Your task to perform on an android device: open app "Truecaller" (install if not already installed) Image 0: 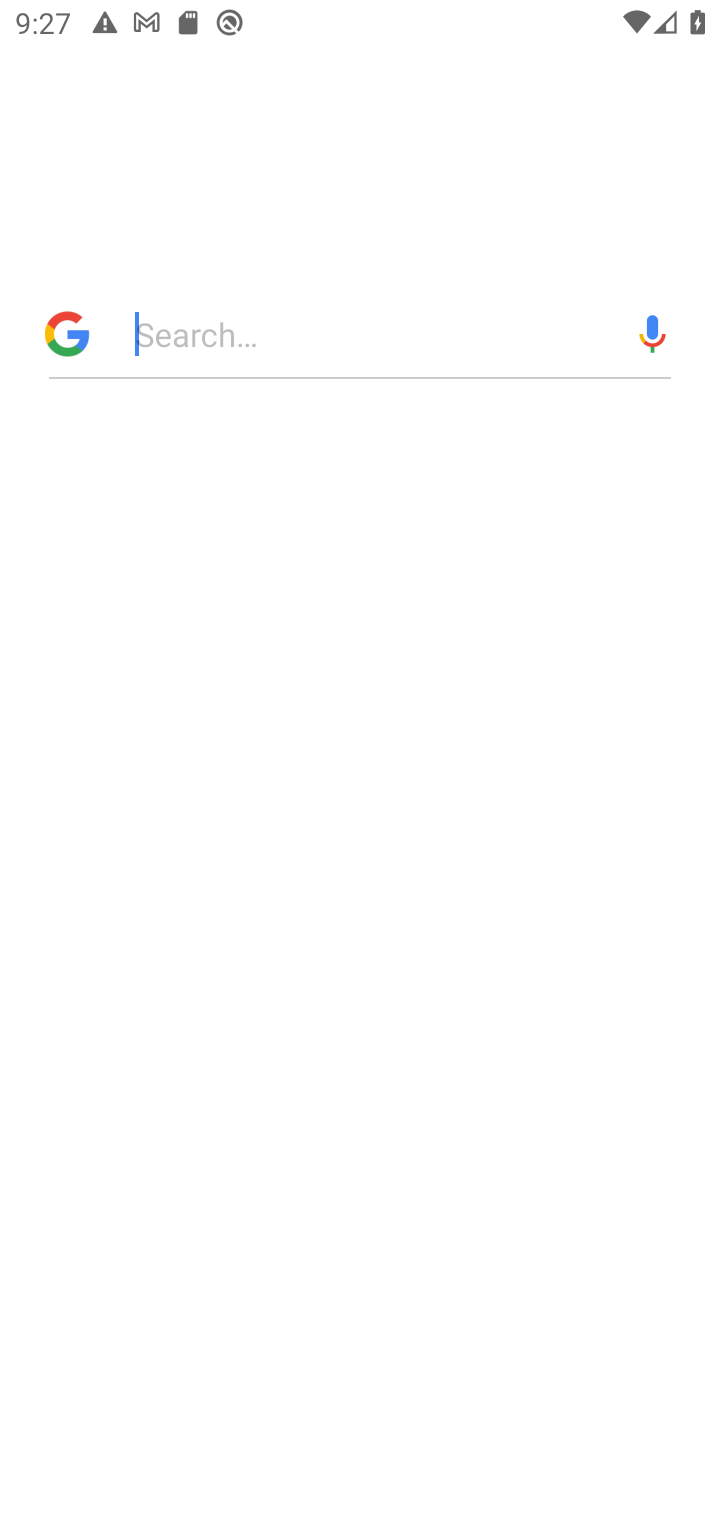
Step 0: press home button
Your task to perform on an android device: open app "Truecaller" (install if not already installed) Image 1: 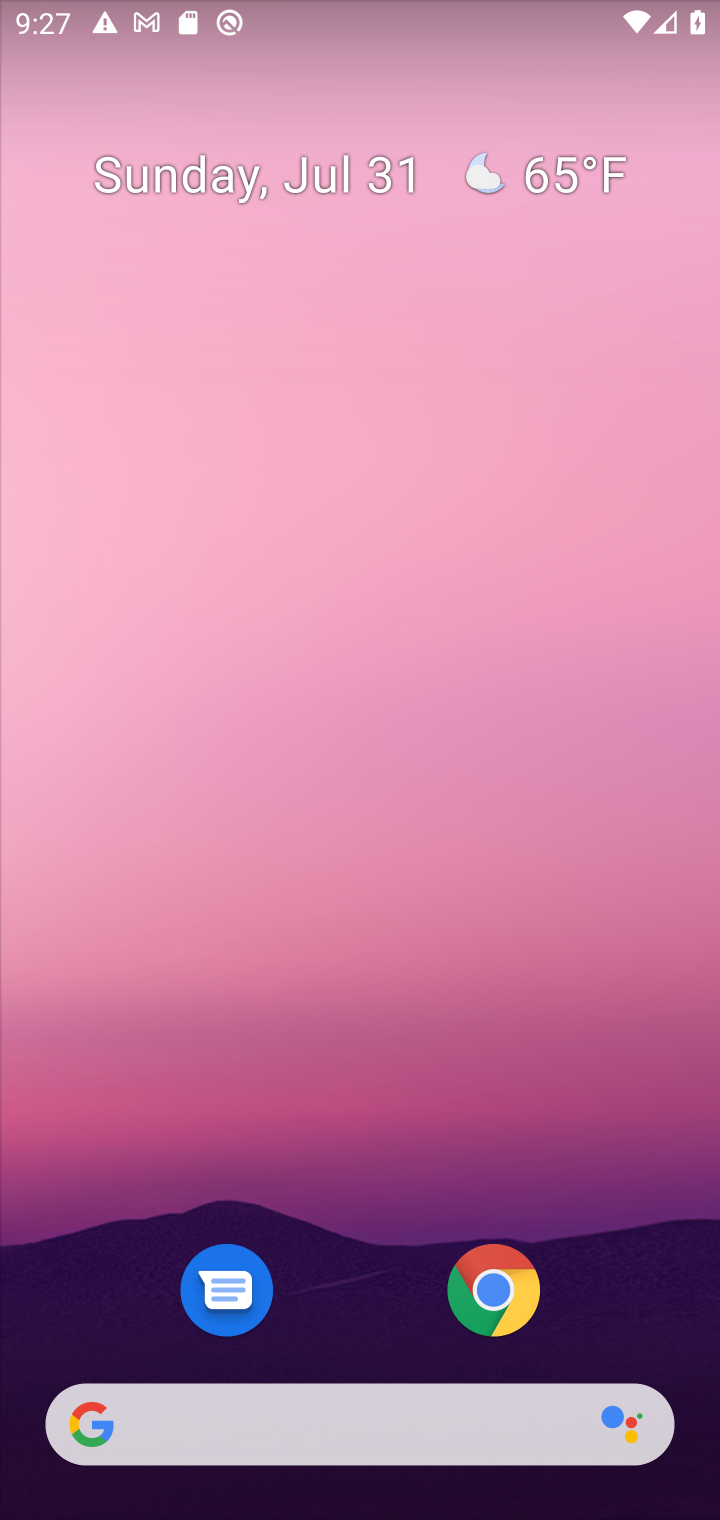
Step 1: drag from (618, 1017) to (566, 140)
Your task to perform on an android device: open app "Truecaller" (install if not already installed) Image 2: 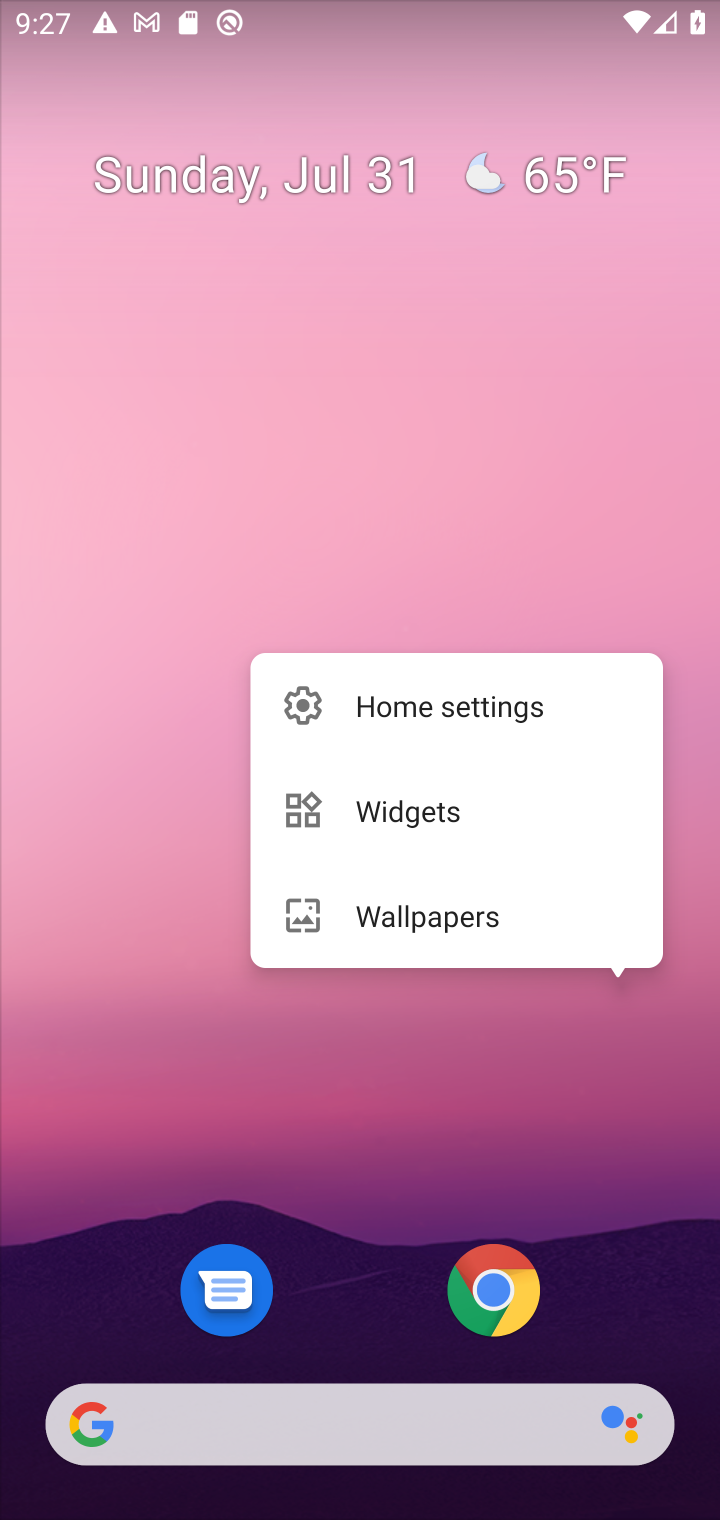
Step 2: drag from (672, 1199) to (688, 318)
Your task to perform on an android device: open app "Truecaller" (install if not already installed) Image 3: 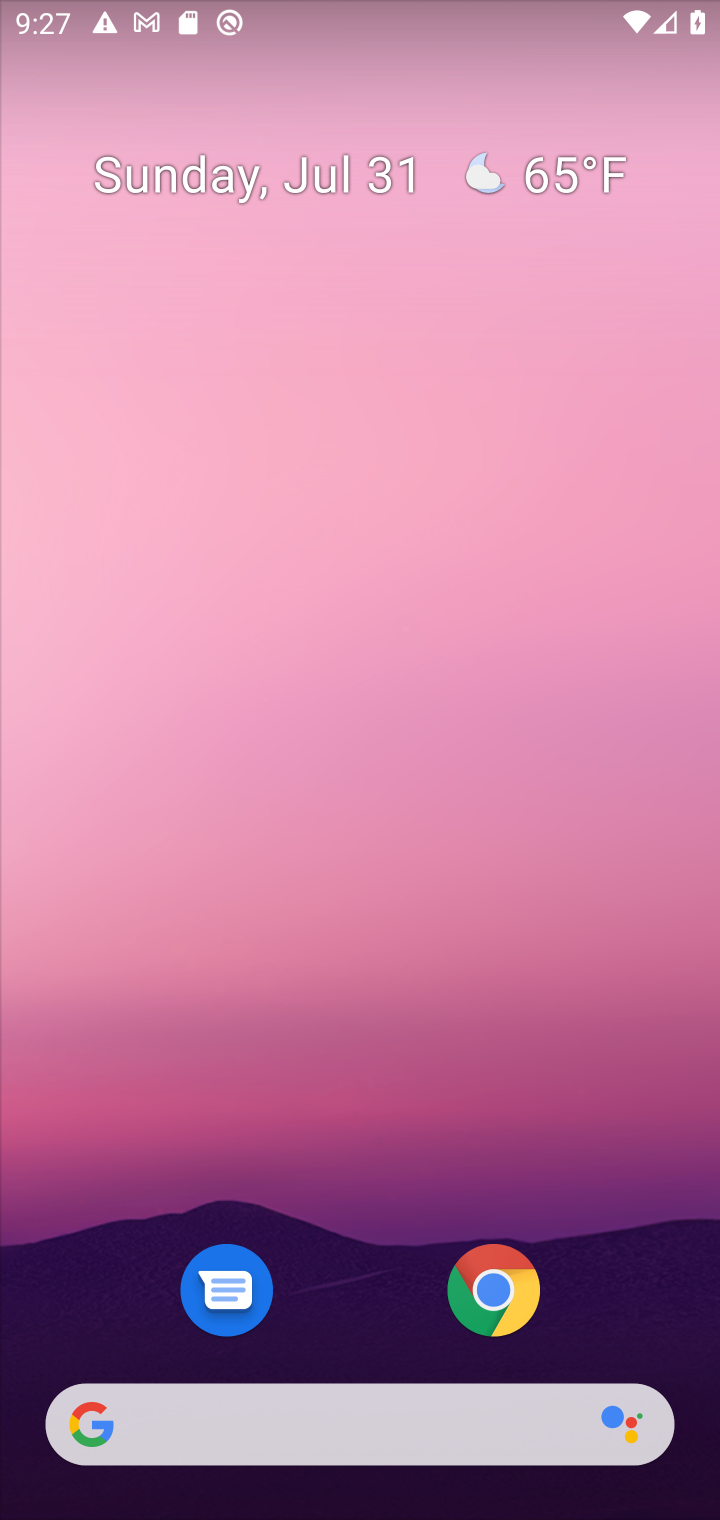
Step 3: drag from (614, 1308) to (540, 1)
Your task to perform on an android device: open app "Truecaller" (install if not already installed) Image 4: 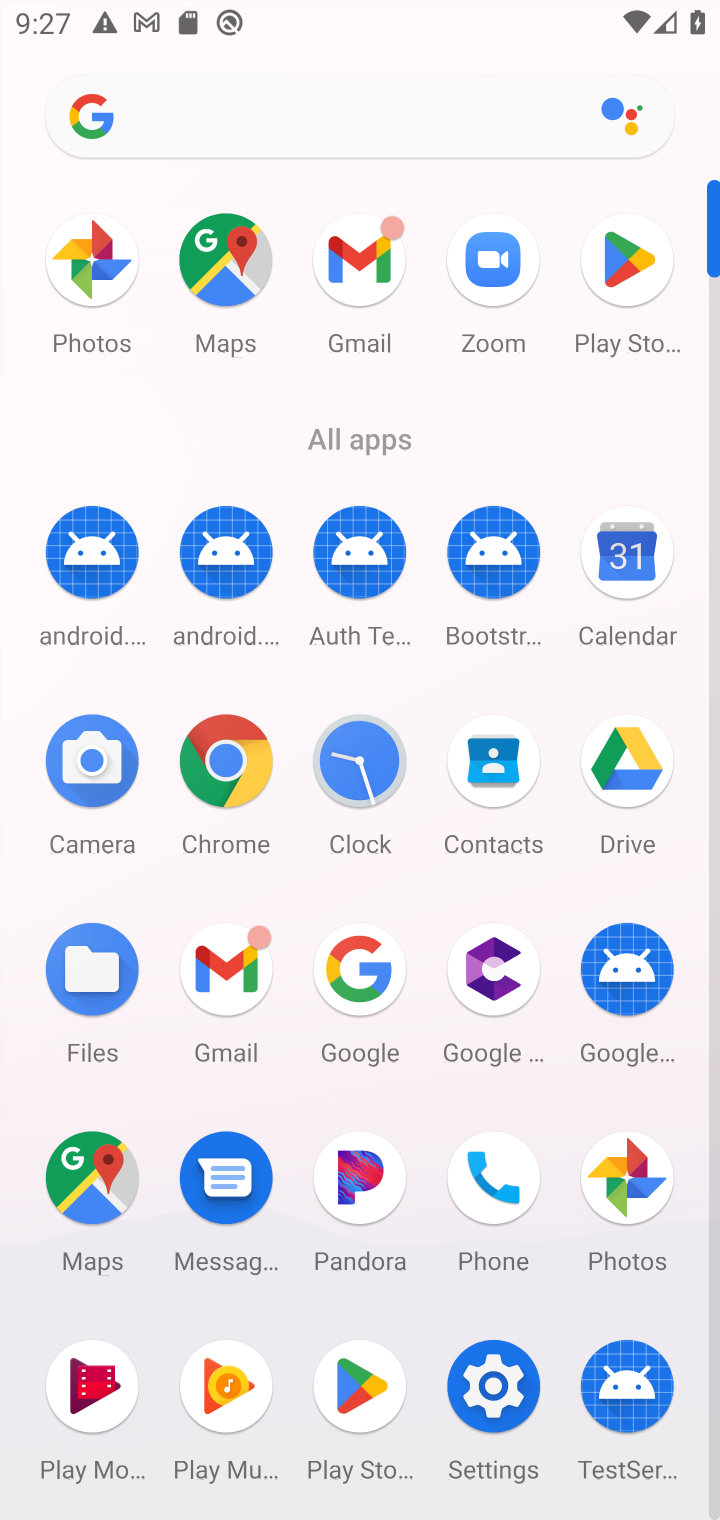
Step 4: click (629, 260)
Your task to perform on an android device: open app "Truecaller" (install if not already installed) Image 5: 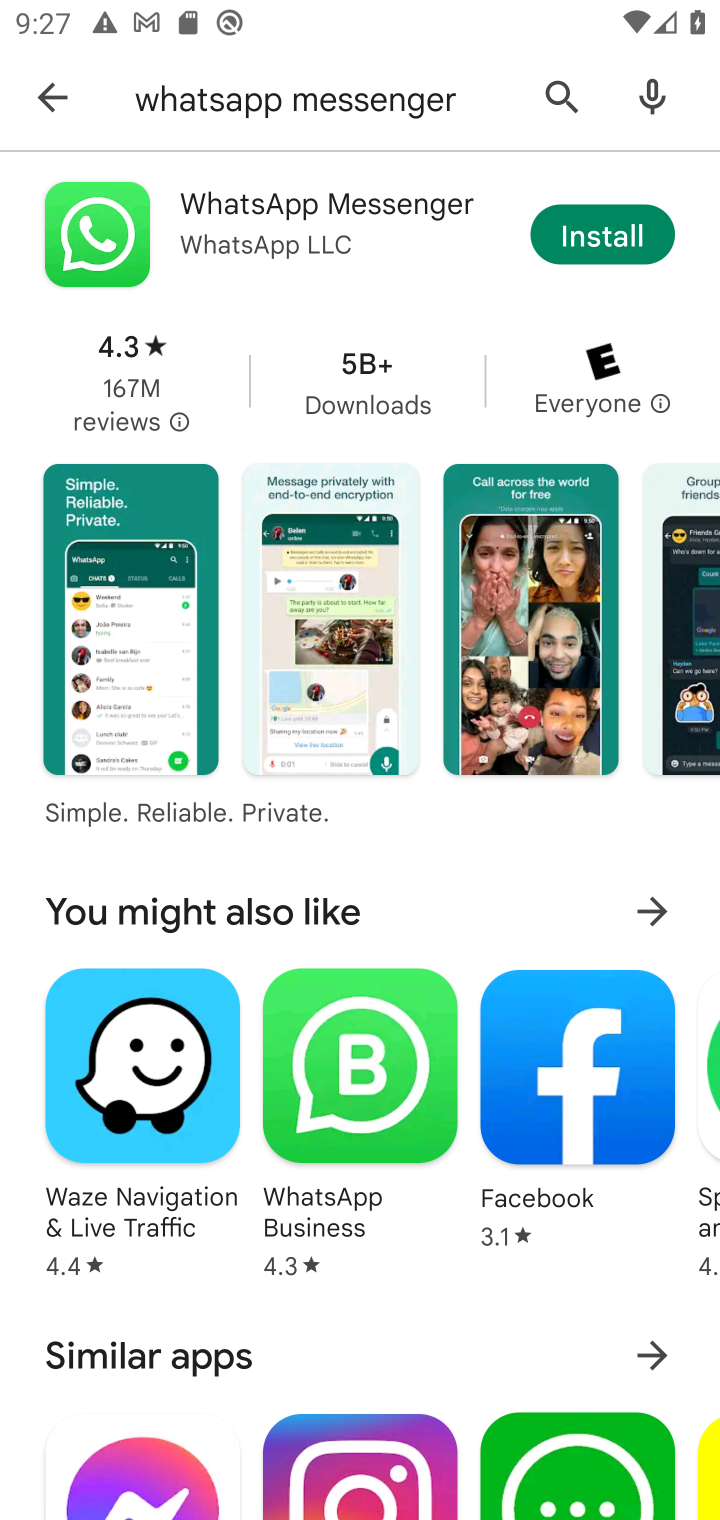
Step 5: click (566, 92)
Your task to perform on an android device: open app "Truecaller" (install if not already installed) Image 6: 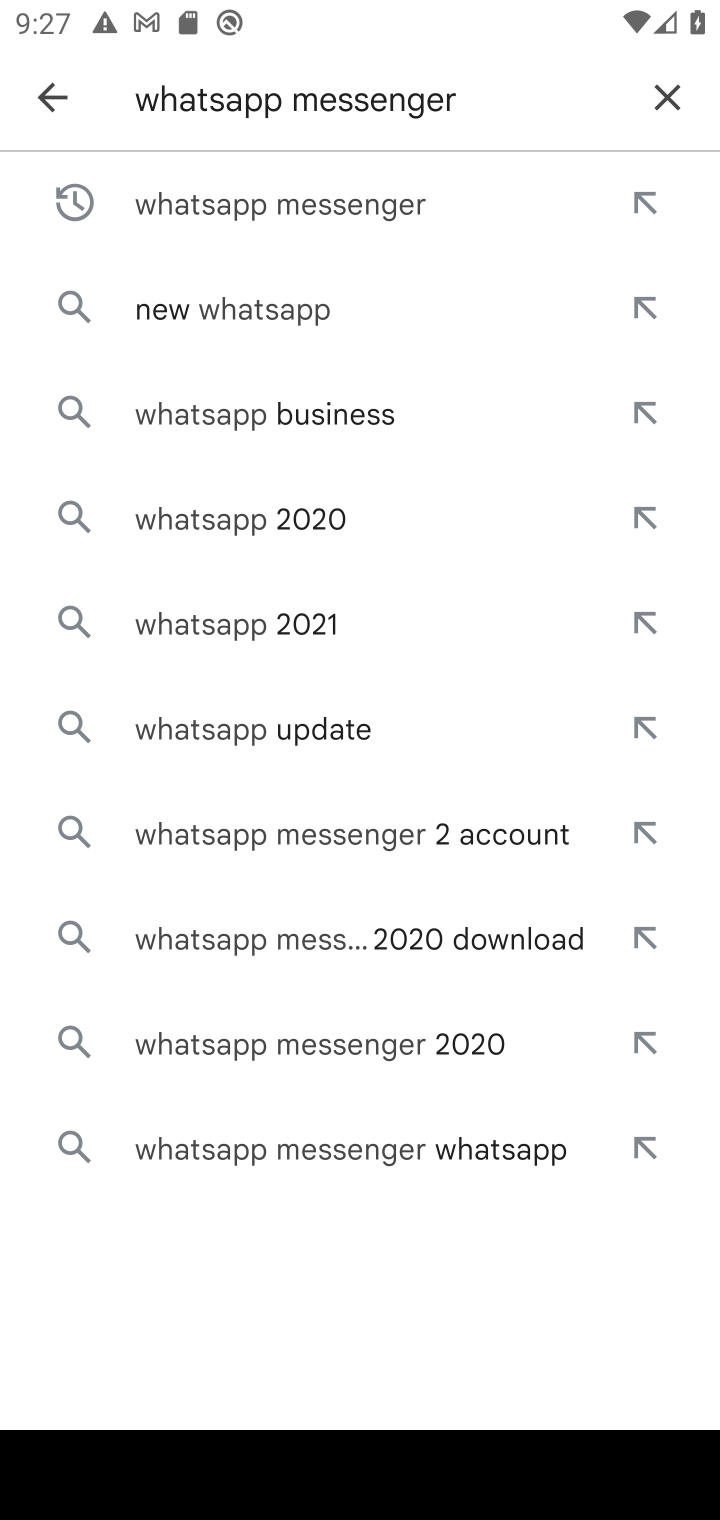
Step 6: click (672, 93)
Your task to perform on an android device: open app "Truecaller" (install if not already installed) Image 7: 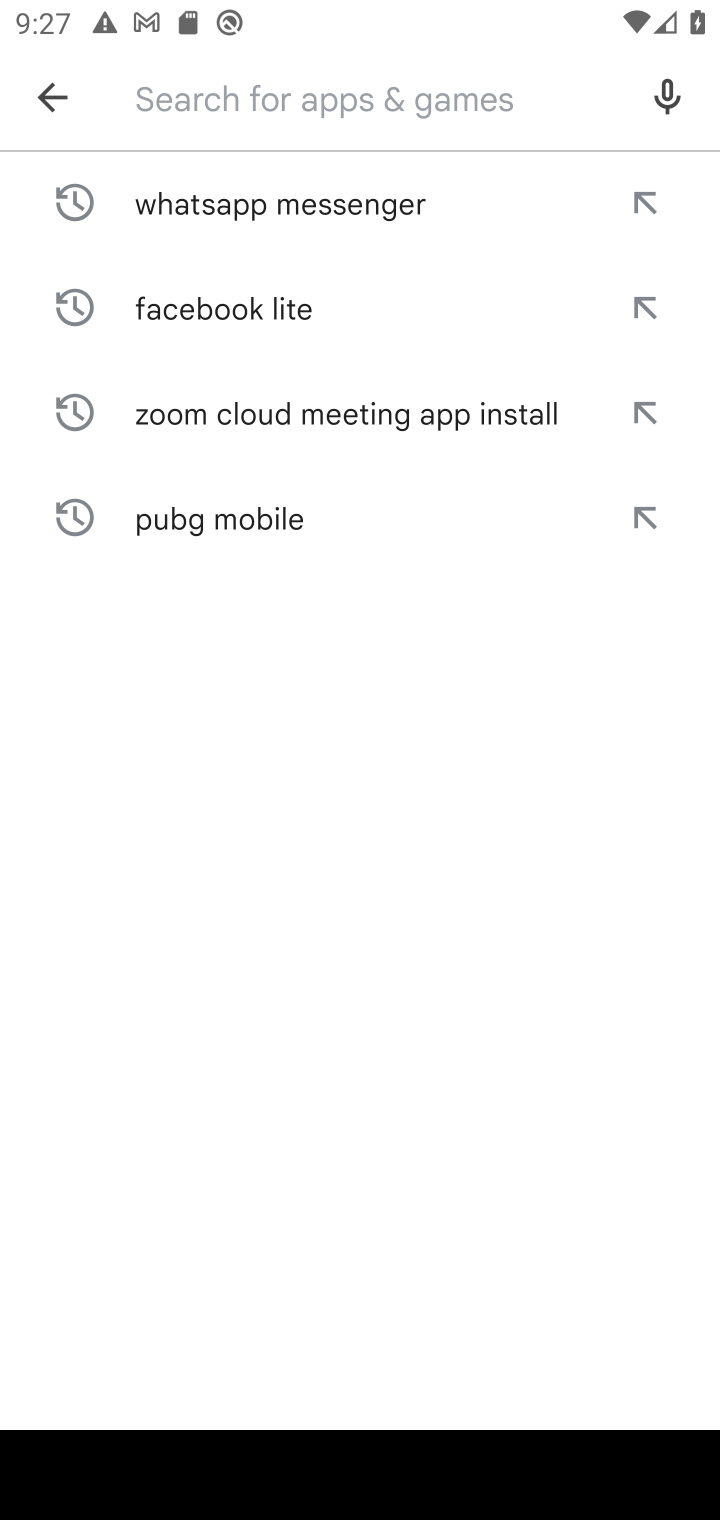
Step 7: type "truecaller"
Your task to perform on an android device: open app "Truecaller" (install if not already installed) Image 8: 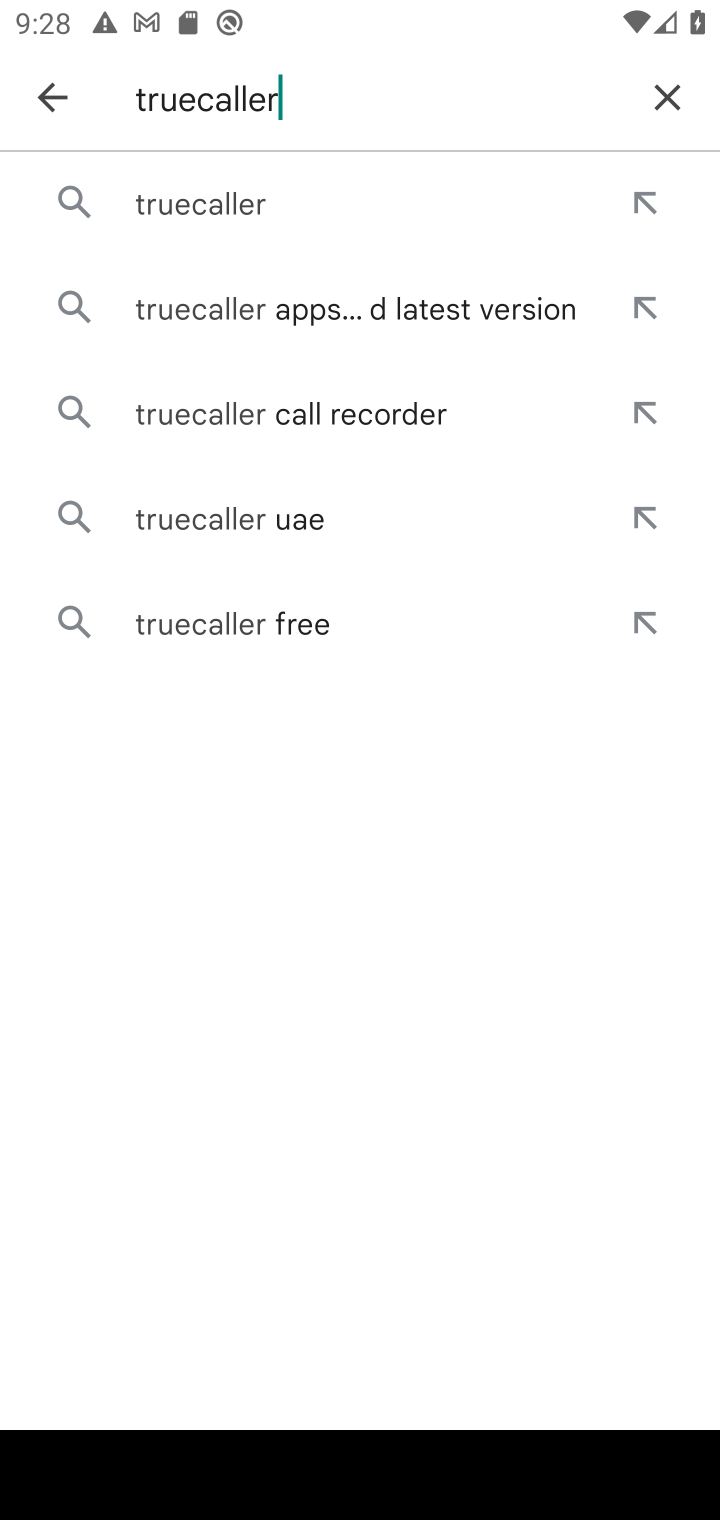
Step 8: click (272, 200)
Your task to perform on an android device: open app "Truecaller" (install if not already installed) Image 9: 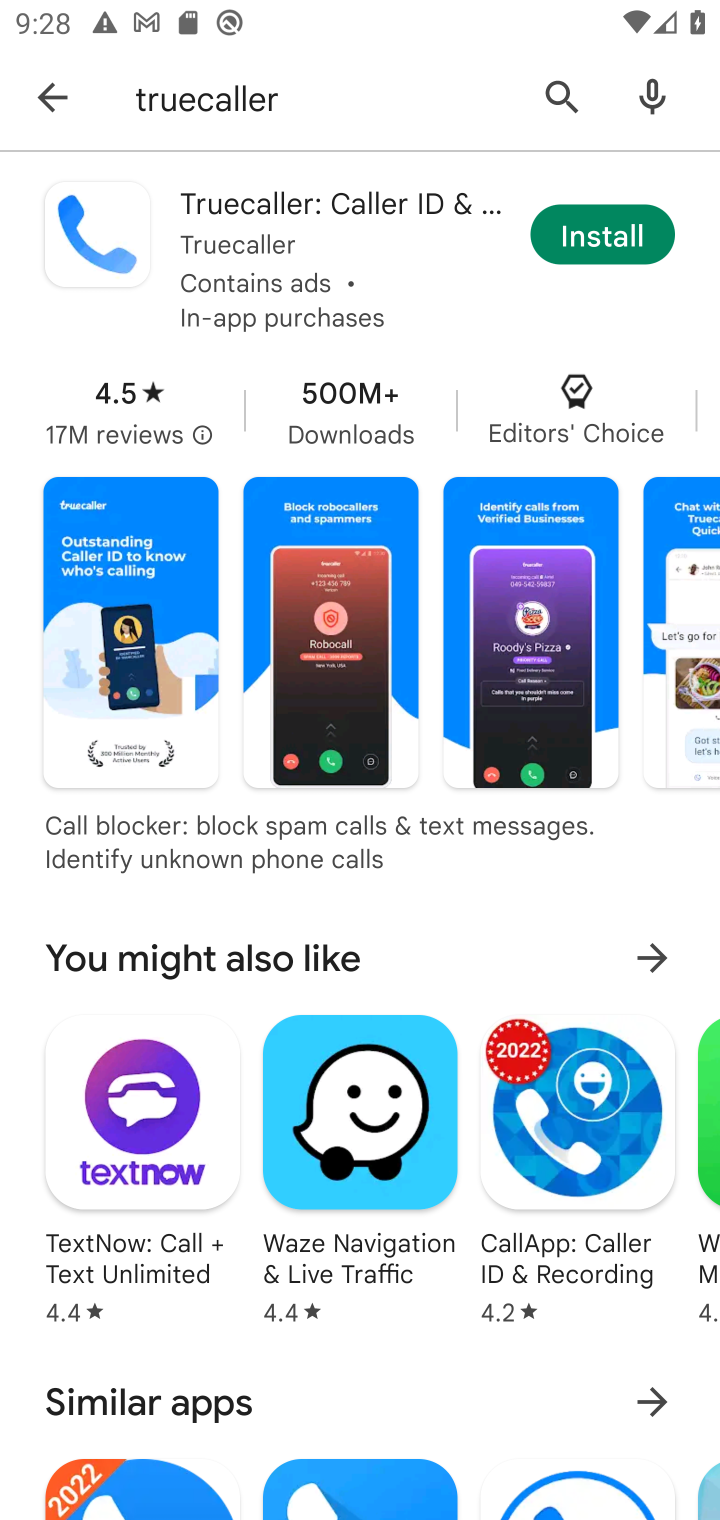
Step 9: click (604, 263)
Your task to perform on an android device: open app "Truecaller" (install if not already installed) Image 10: 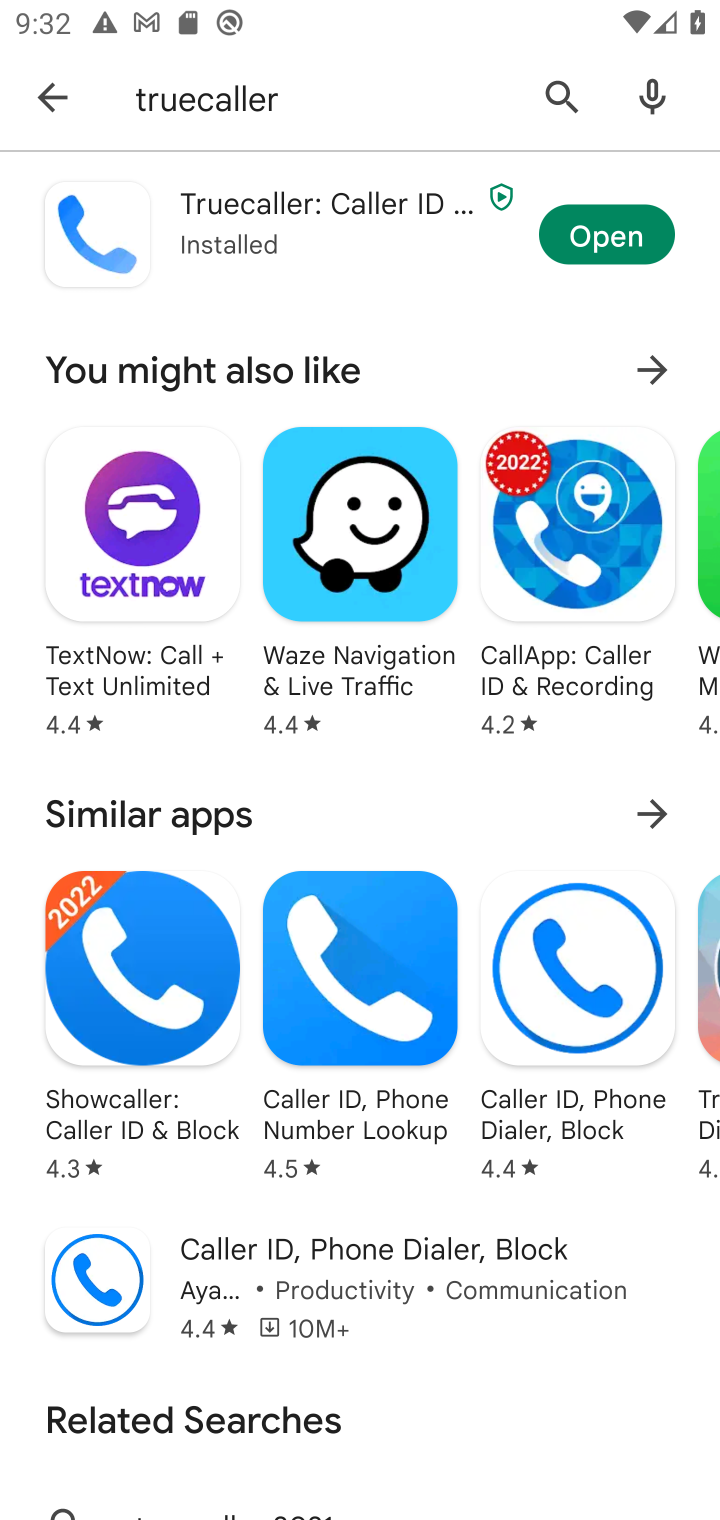
Step 10: click (609, 228)
Your task to perform on an android device: open app "Truecaller" (install if not already installed) Image 11: 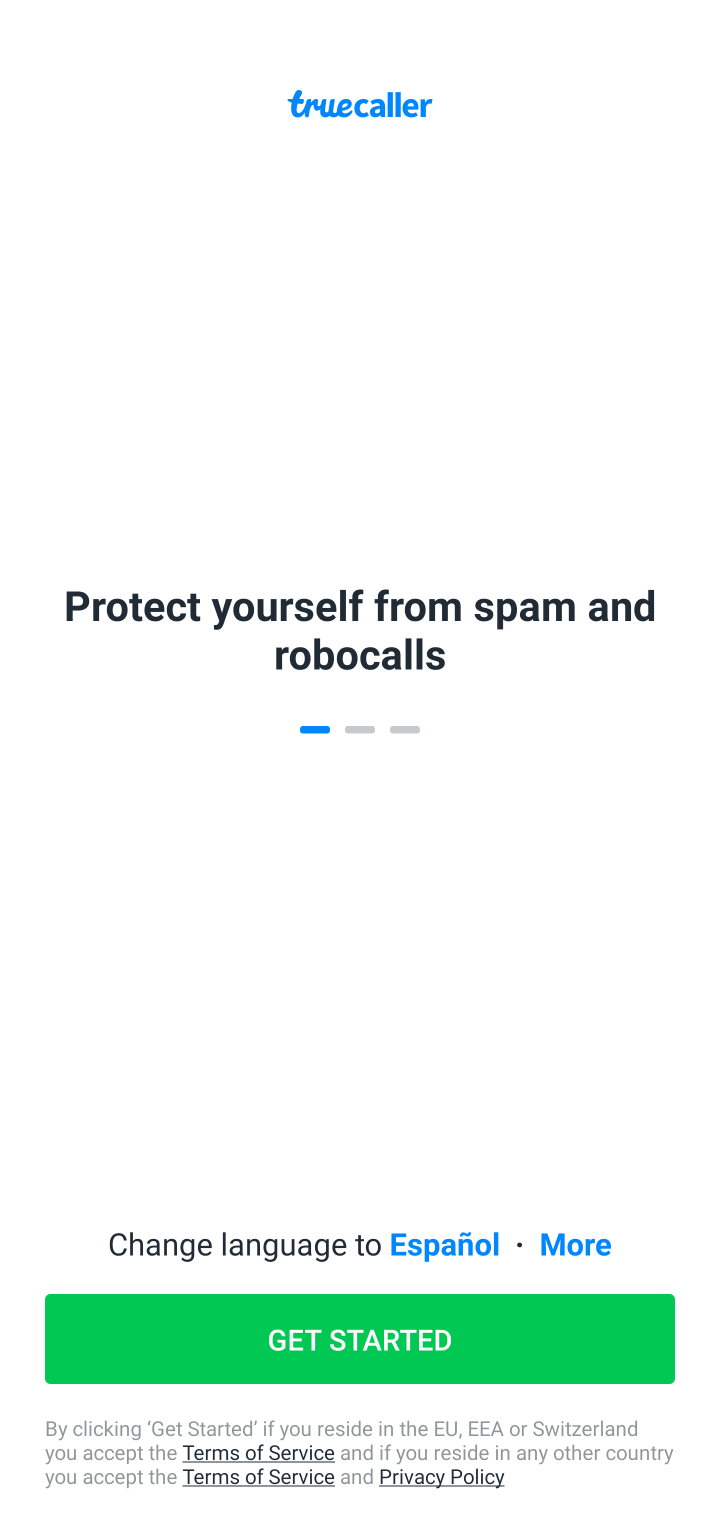
Step 11: task complete